Your task to perform on an android device: set default search engine in the chrome app Image 0: 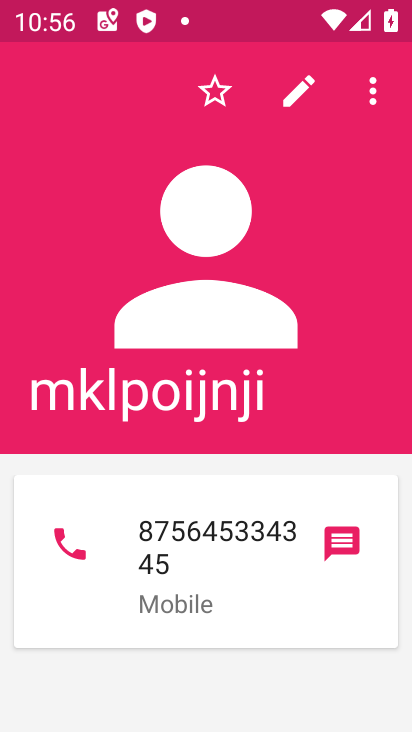
Step 0: press home button
Your task to perform on an android device: set default search engine in the chrome app Image 1: 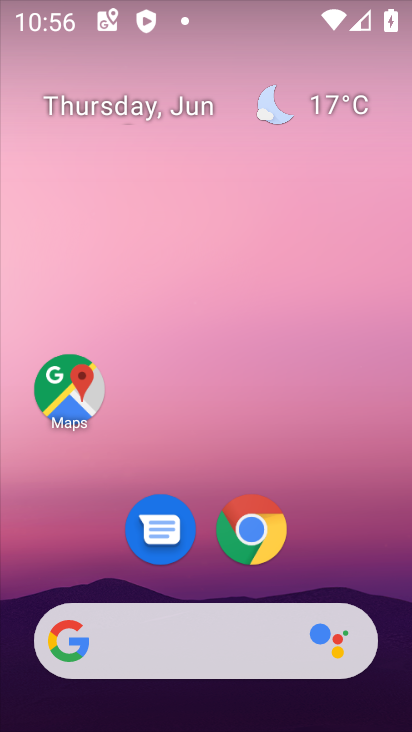
Step 1: click (257, 527)
Your task to perform on an android device: set default search engine in the chrome app Image 2: 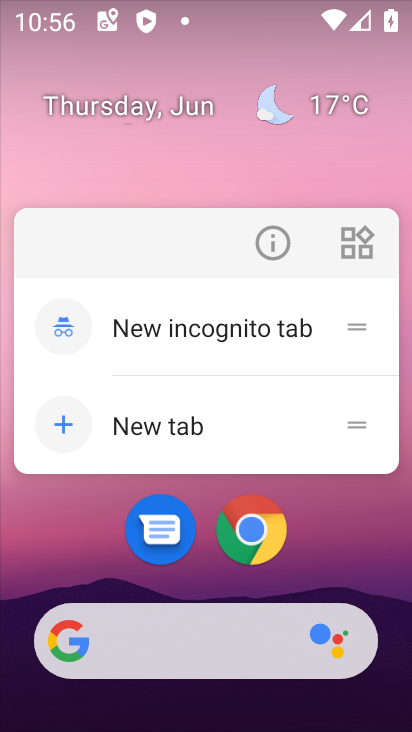
Step 2: click (257, 527)
Your task to perform on an android device: set default search engine in the chrome app Image 3: 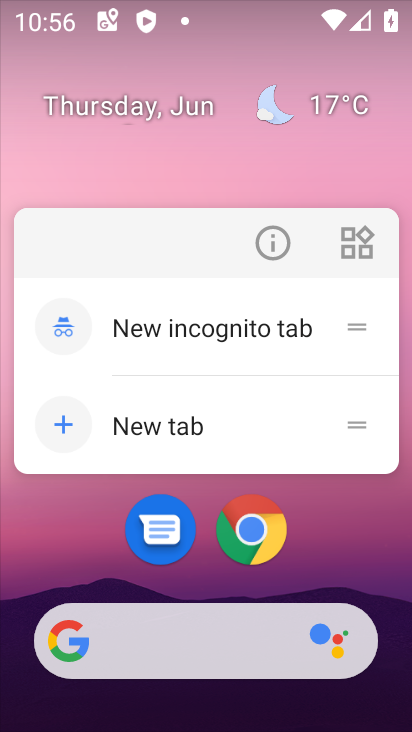
Step 3: click (254, 529)
Your task to perform on an android device: set default search engine in the chrome app Image 4: 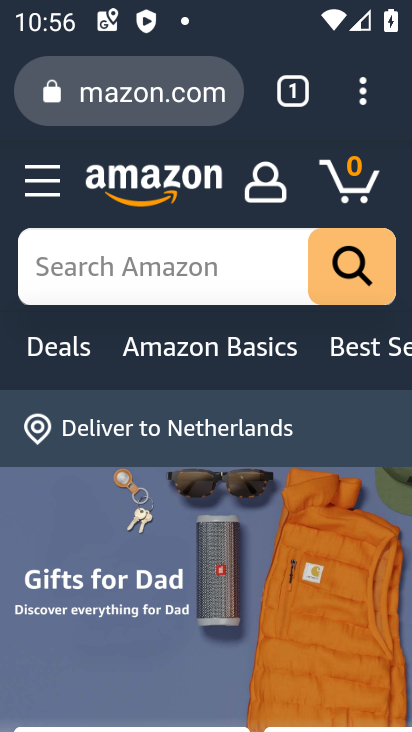
Step 4: click (359, 86)
Your task to perform on an android device: set default search engine in the chrome app Image 5: 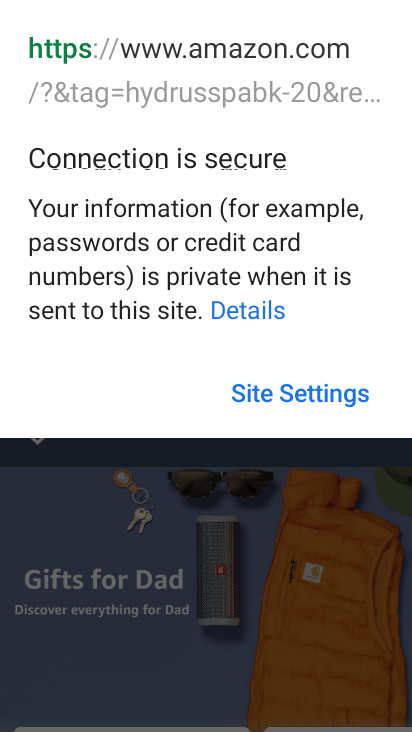
Step 5: click (134, 599)
Your task to perform on an android device: set default search engine in the chrome app Image 6: 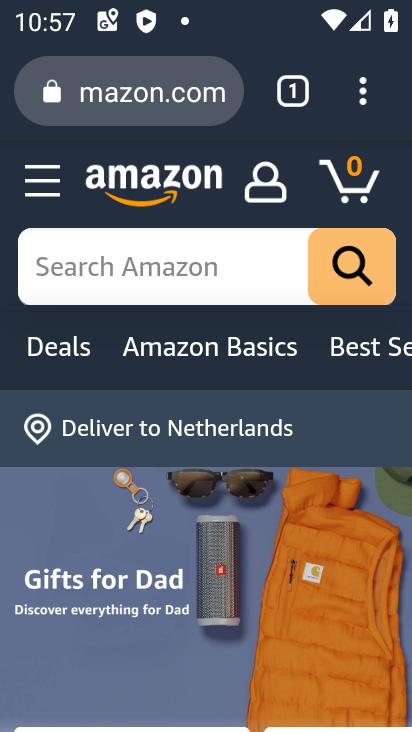
Step 6: click (349, 103)
Your task to perform on an android device: set default search engine in the chrome app Image 7: 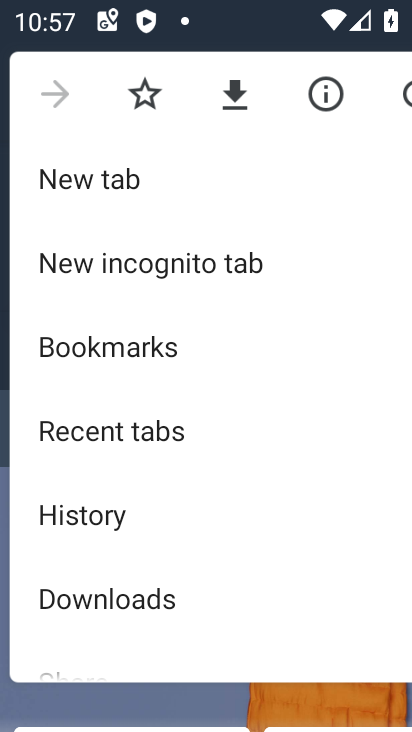
Step 7: drag from (237, 574) to (227, 97)
Your task to perform on an android device: set default search engine in the chrome app Image 8: 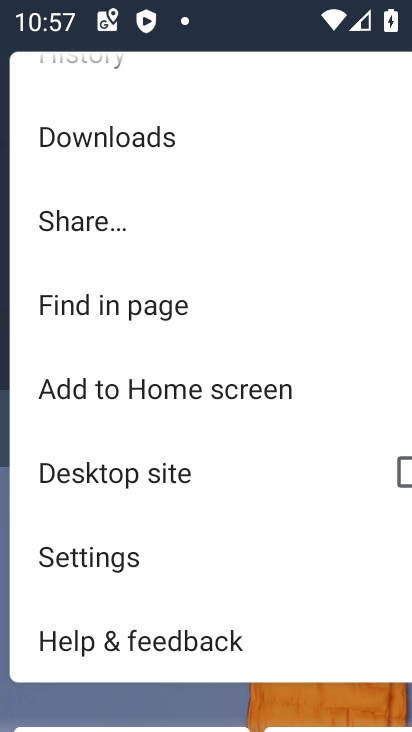
Step 8: click (200, 563)
Your task to perform on an android device: set default search engine in the chrome app Image 9: 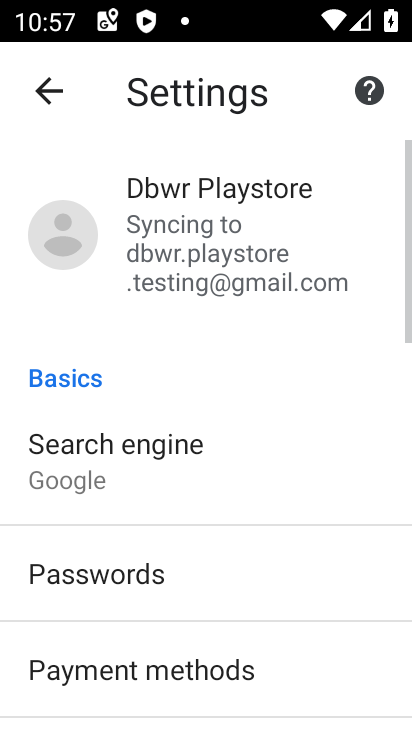
Step 9: click (65, 430)
Your task to perform on an android device: set default search engine in the chrome app Image 10: 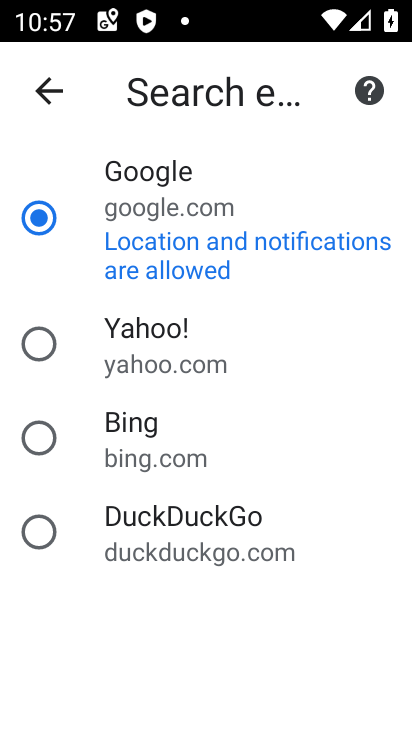
Step 10: click (126, 337)
Your task to perform on an android device: set default search engine in the chrome app Image 11: 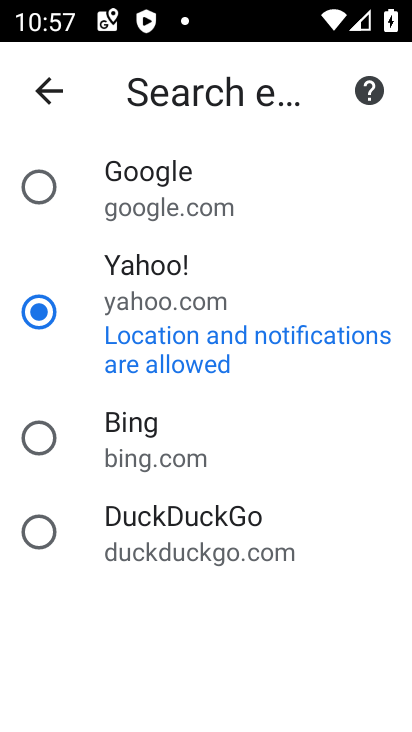
Step 11: task complete